Your task to perform on an android device: View the shopping cart on costco.com. Add usb-a to usb-b to the cart on costco.com Image 0: 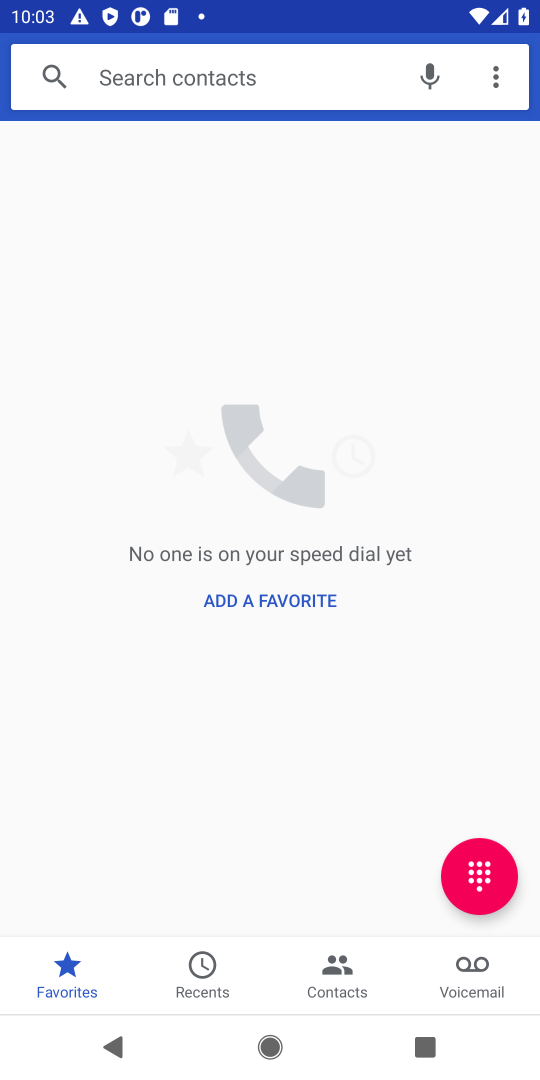
Step 0: press home button
Your task to perform on an android device: View the shopping cart on costco.com. Add usb-a to usb-b to the cart on costco.com Image 1: 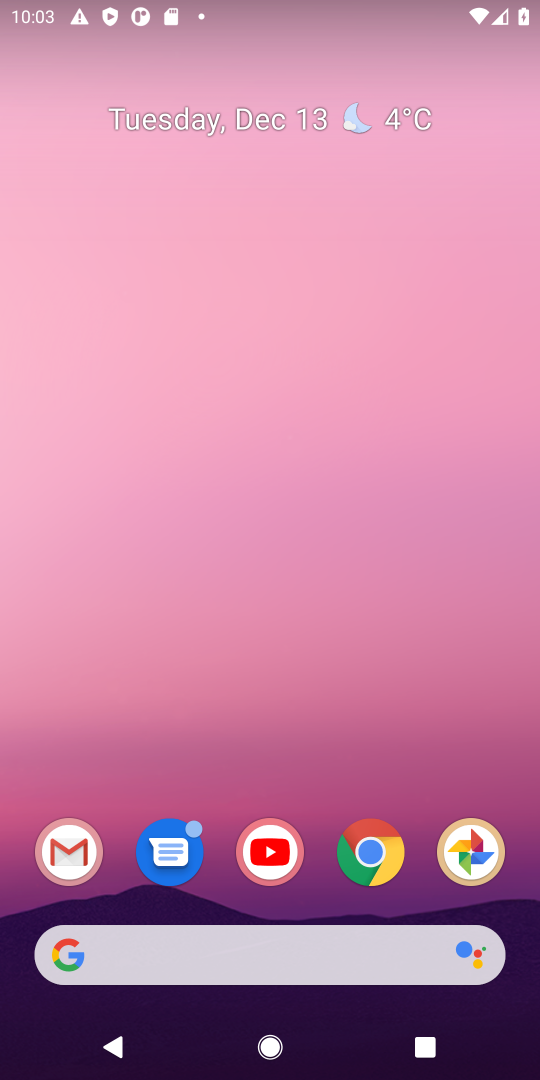
Step 1: click (128, 954)
Your task to perform on an android device: View the shopping cart on costco.com. Add usb-a to usb-b to the cart on costco.com Image 2: 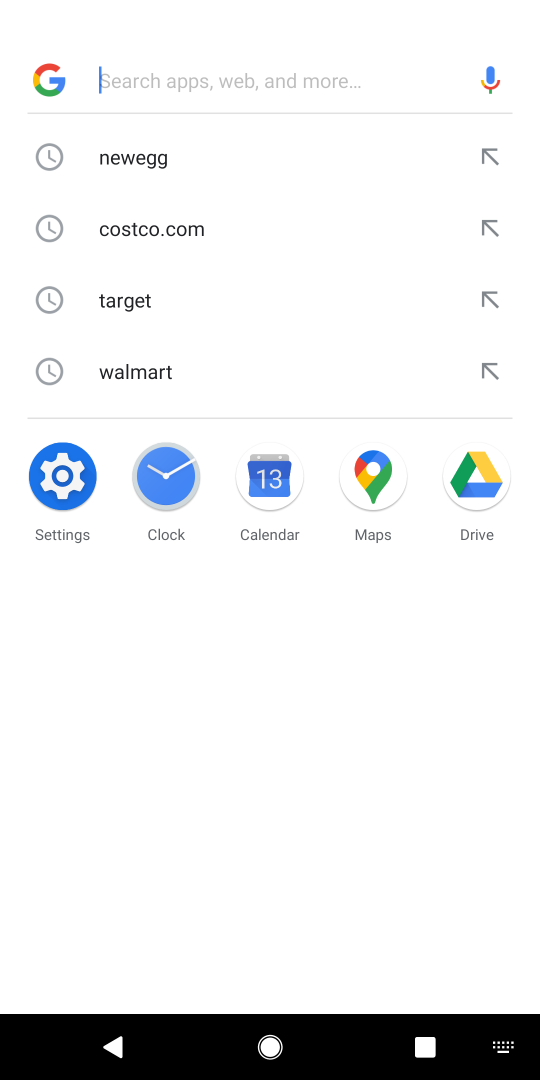
Step 2: type "costco.com"
Your task to perform on an android device: View the shopping cart on costco.com. Add usb-a to usb-b to the cart on costco.com Image 3: 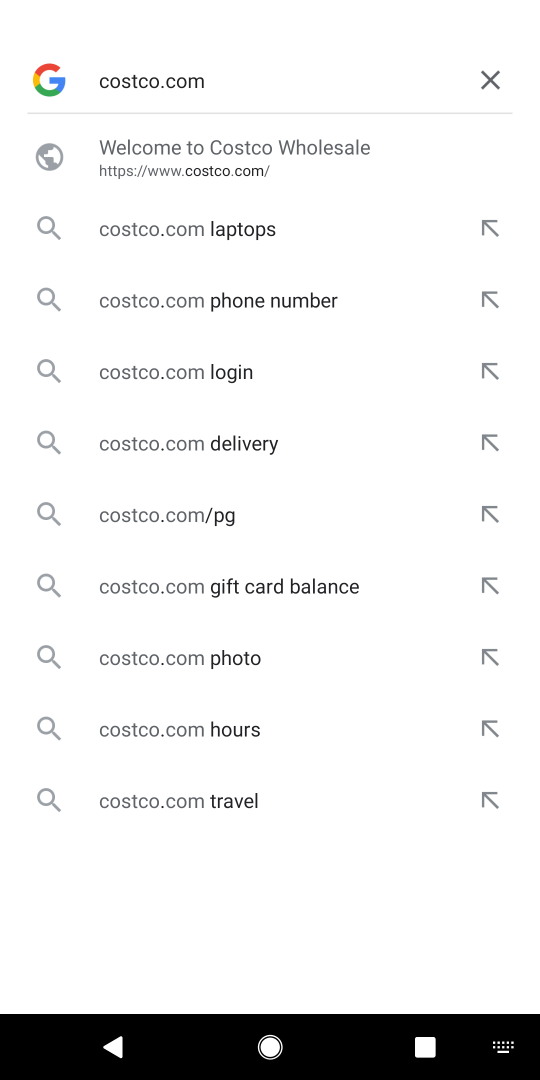
Step 3: press enter
Your task to perform on an android device: View the shopping cart on costco.com. Add usb-a to usb-b to the cart on costco.com Image 4: 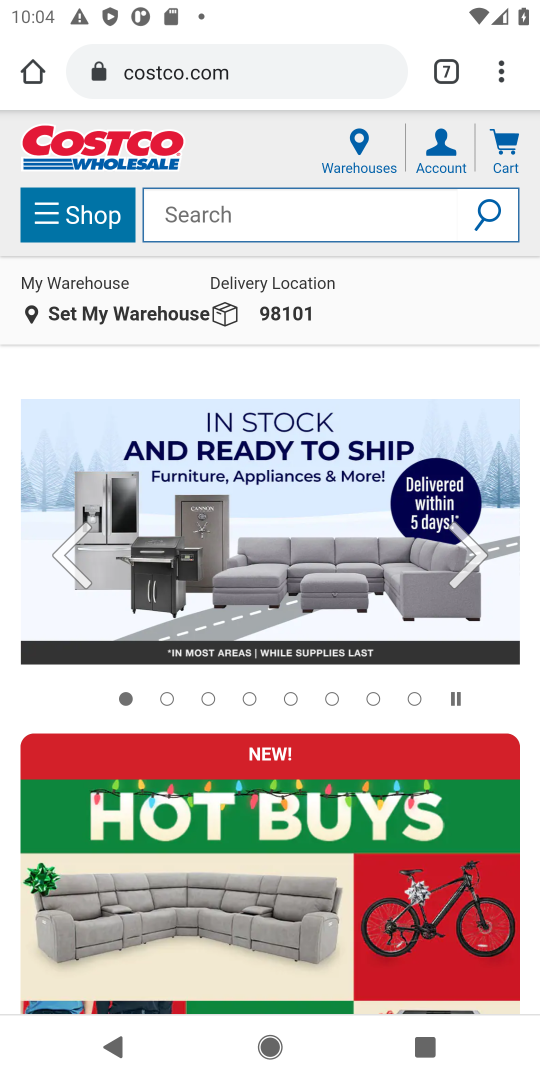
Step 4: click (499, 152)
Your task to perform on an android device: View the shopping cart on costco.com. Add usb-a to usb-b to the cart on costco.com Image 5: 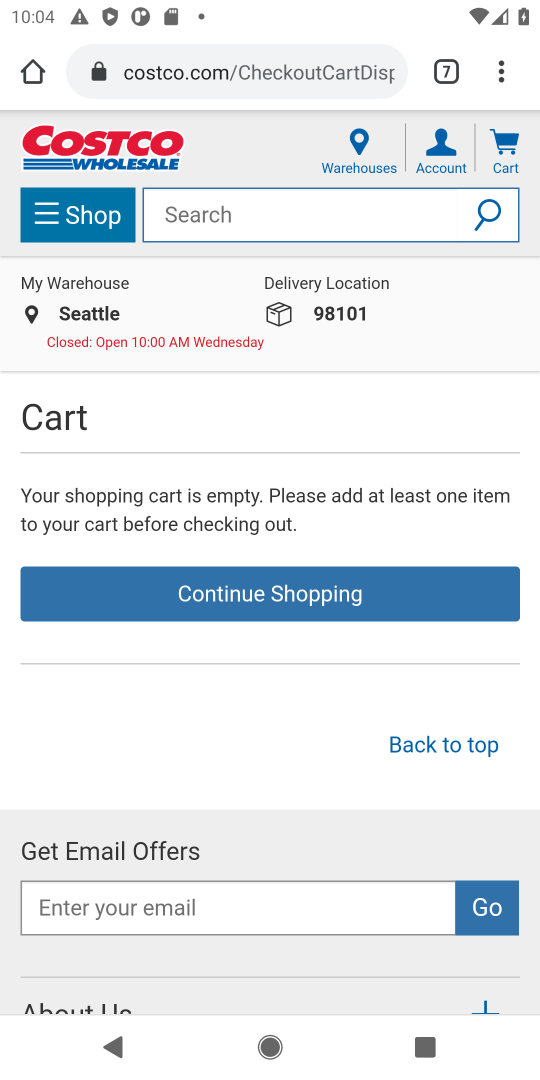
Step 5: click (235, 217)
Your task to perform on an android device: View the shopping cart on costco.com. Add usb-a to usb-b to the cart on costco.com Image 6: 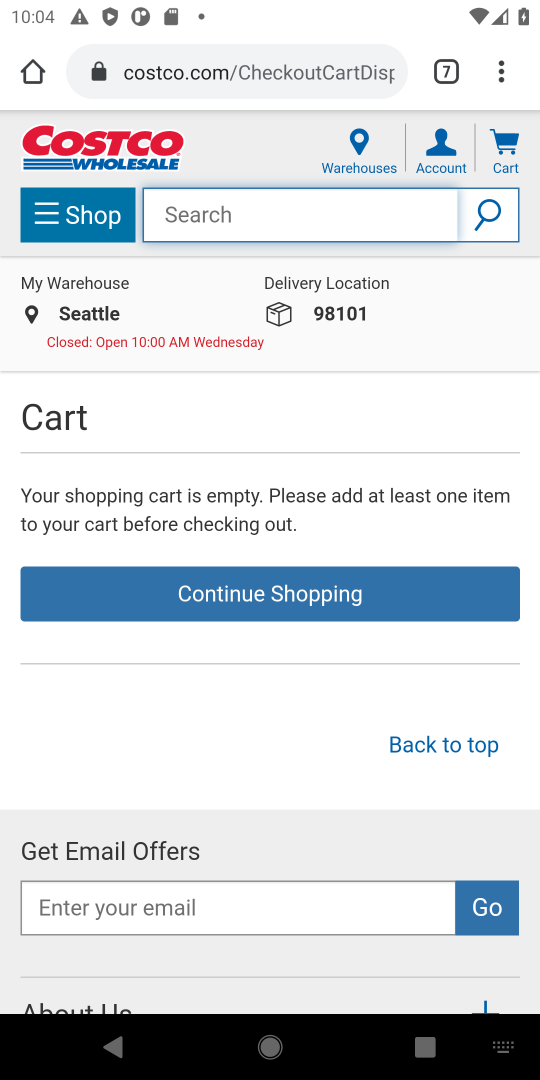
Step 6: type "usb-a to usb-b"
Your task to perform on an android device: View the shopping cart on costco.com. Add usb-a to usb-b to the cart on costco.com Image 7: 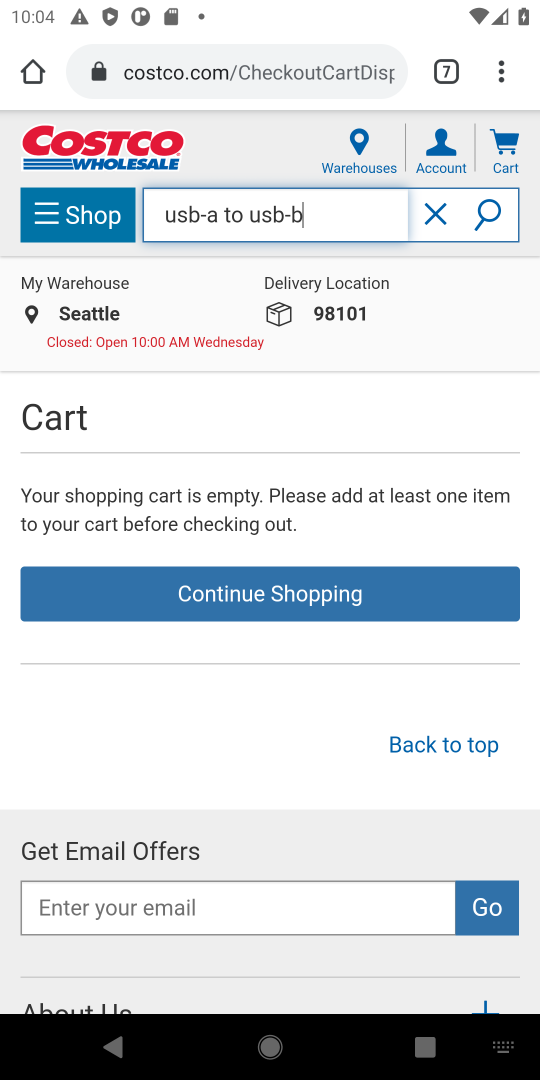
Step 7: press enter
Your task to perform on an android device: View the shopping cart on costco.com. Add usb-a to usb-b to the cart on costco.com Image 8: 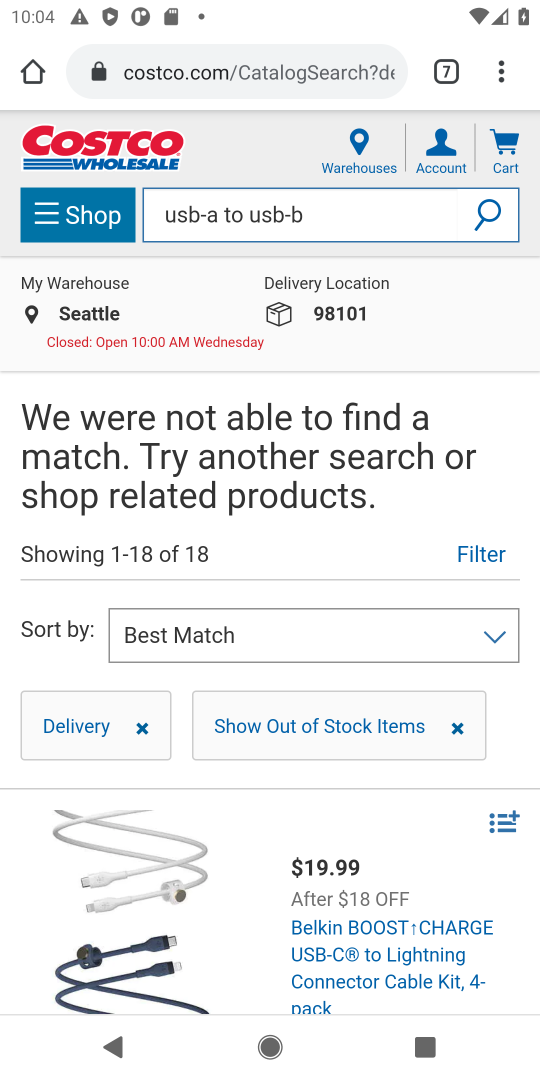
Step 8: task complete